Your task to perform on an android device: change notifications settings Image 0: 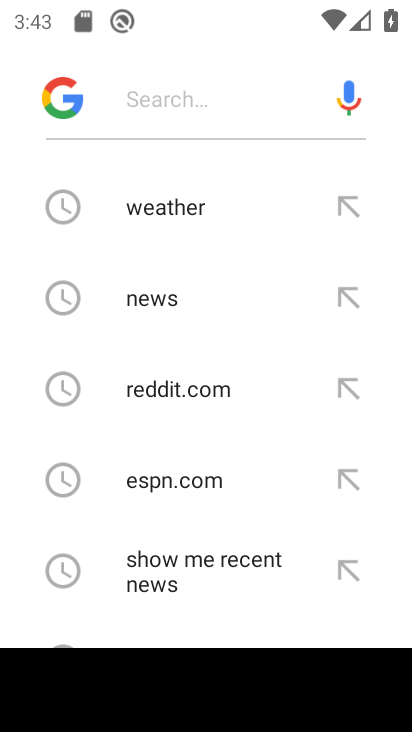
Step 0: press home button
Your task to perform on an android device: change notifications settings Image 1: 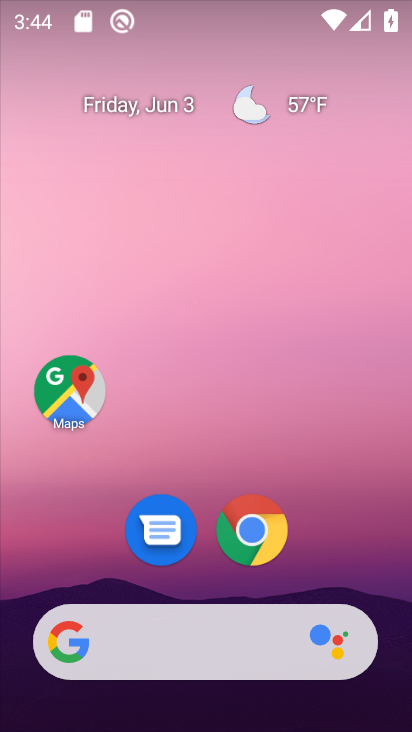
Step 1: drag from (203, 585) to (228, 93)
Your task to perform on an android device: change notifications settings Image 2: 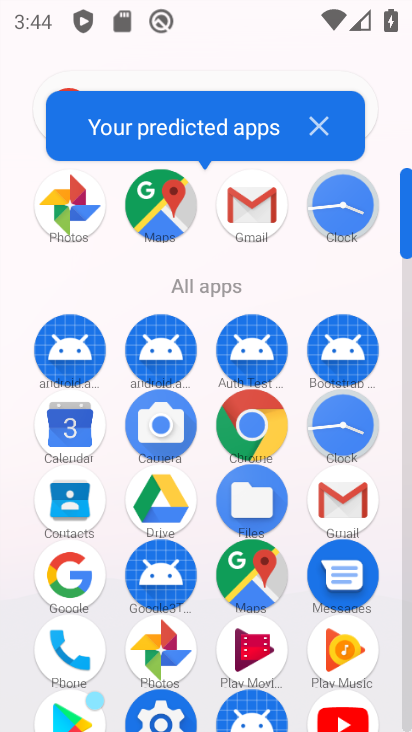
Step 2: drag from (198, 539) to (232, 133)
Your task to perform on an android device: change notifications settings Image 3: 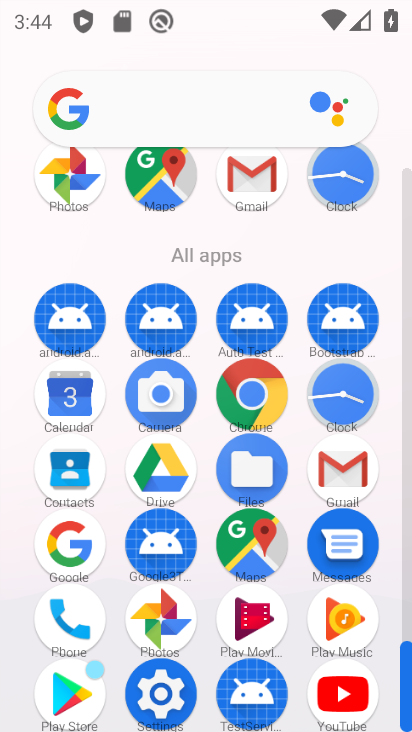
Step 3: click (157, 687)
Your task to perform on an android device: change notifications settings Image 4: 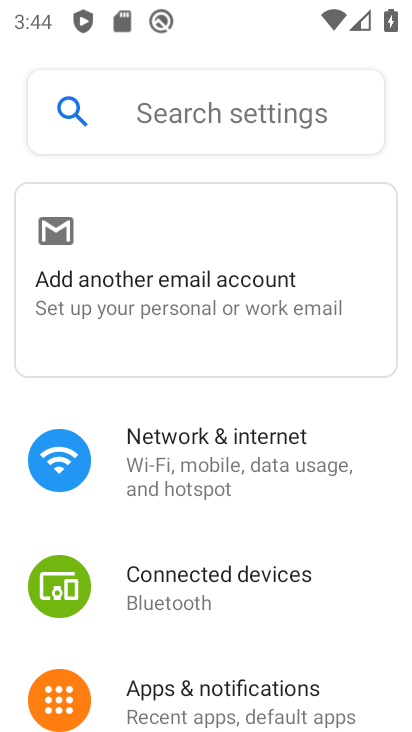
Step 4: click (221, 691)
Your task to perform on an android device: change notifications settings Image 5: 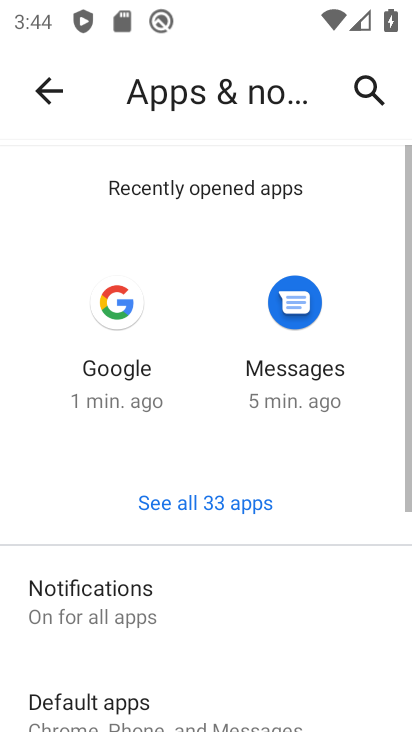
Step 5: click (169, 592)
Your task to perform on an android device: change notifications settings Image 6: 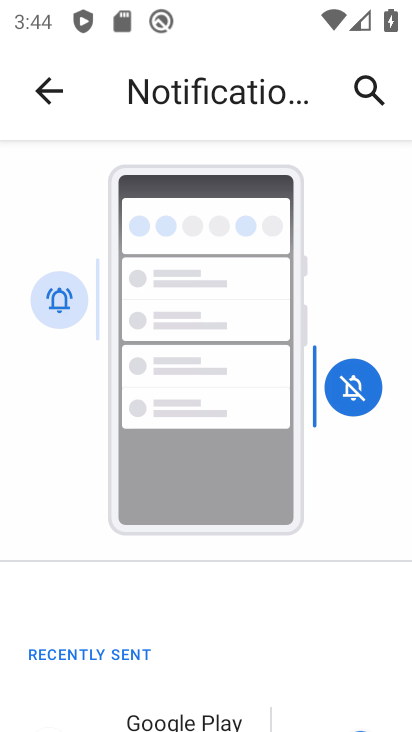
Step 6: drag from (229, 672) to (236, 299)
Your task to perform on an android device: change notifications settings Image 7: 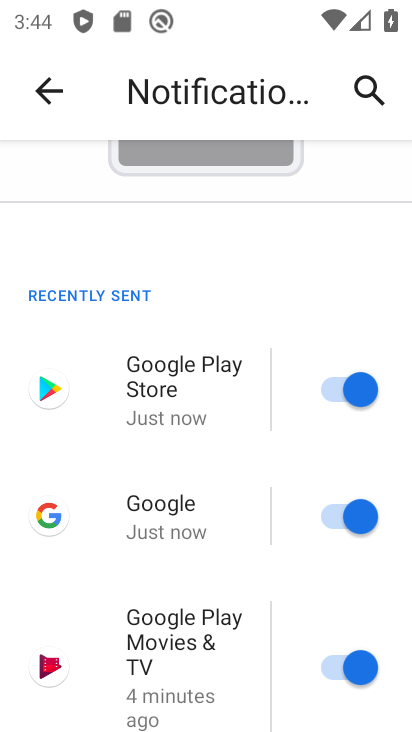
Step 7: click (335, 389)
Your task to perform on an android device: change notifications settings Image 8: 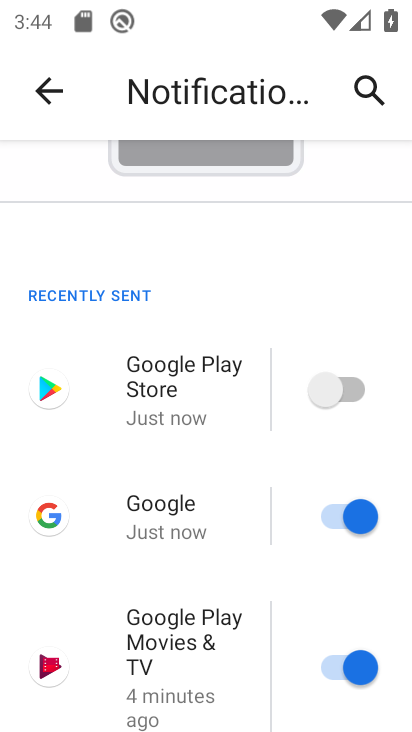
Step 8: click (348, 510)
Your task to perform on an android device: change notifications settings Image 9: 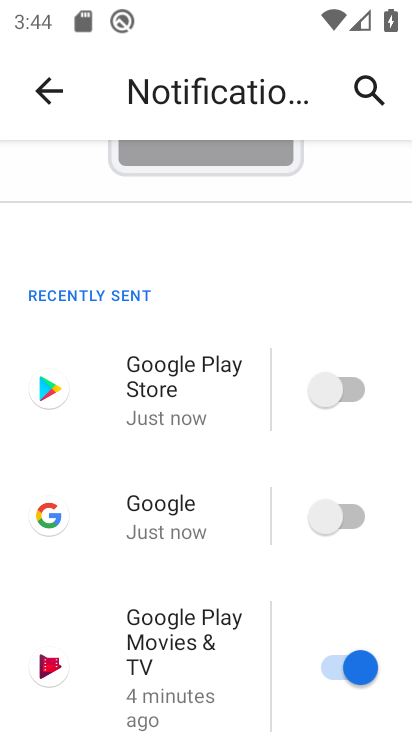
Step 9: click (339, 662)
Your task to perform on an android device: change notifications settings Image 10: 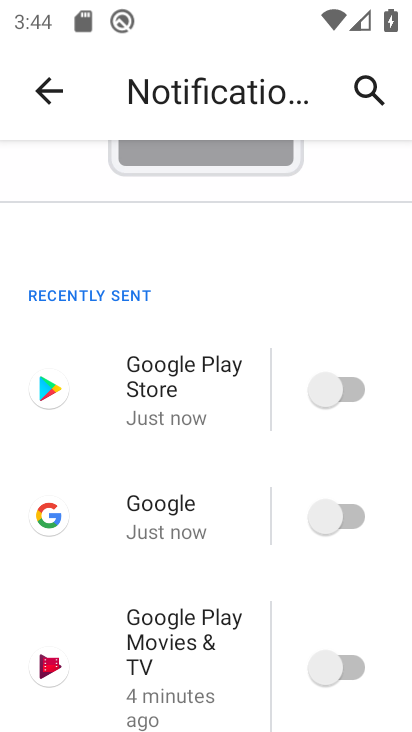
Step 10: drag from (255, 672) to (272, 188)
Your task to perform on an android device: change notifications settings Image 11: 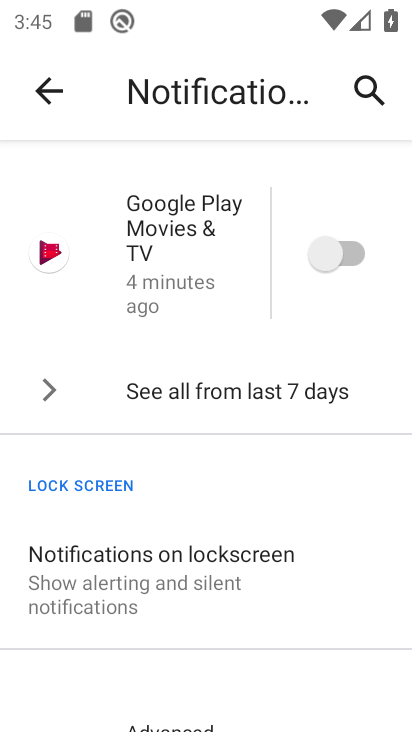
Step 11: click (121, 586)
Your task to perform on an android device: change notifications settings Image 12: 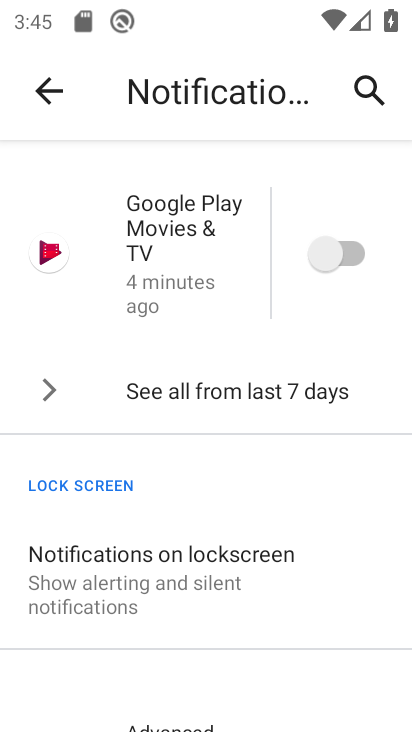
Step 12: click (239, 160)
Your task to perform on an android device: change notifications settings Image 13: 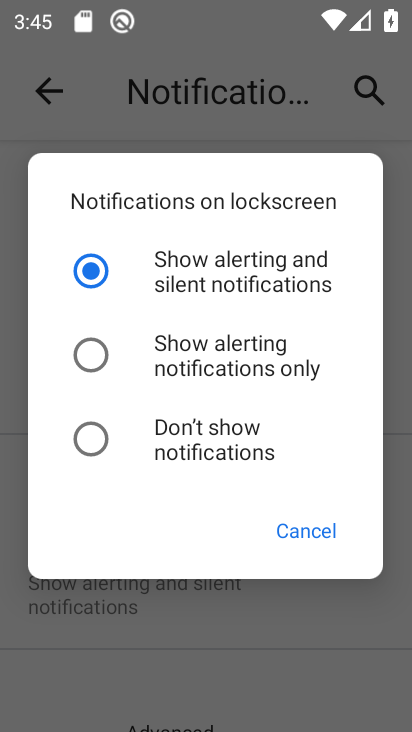
Step 13: click (87, 352)
Your task to perform on an android device: change notifications settings Image 14: 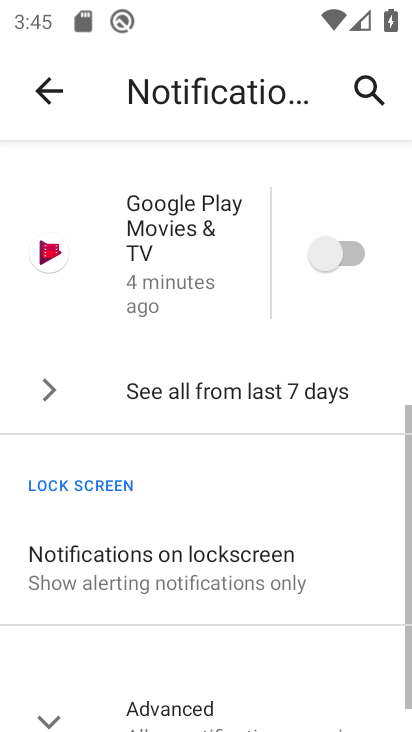
Step 14: drag from (184, 629) to (239, 175)
Your task to perform on an android device: change notifications settings Image 15: 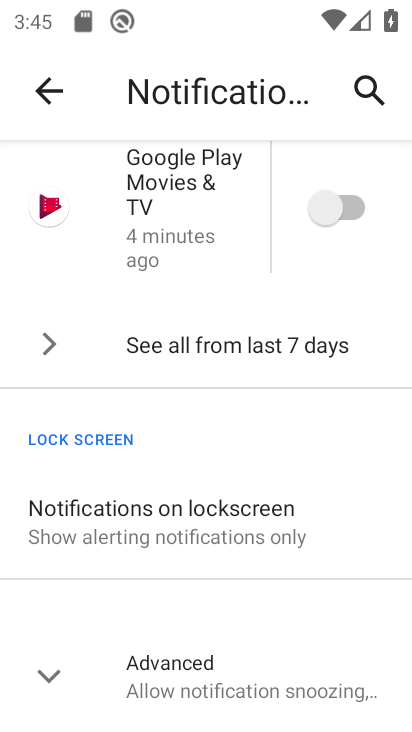
Step 15: click (36, 677)
Your task to perform on an android device: change notifications settings Image 16: 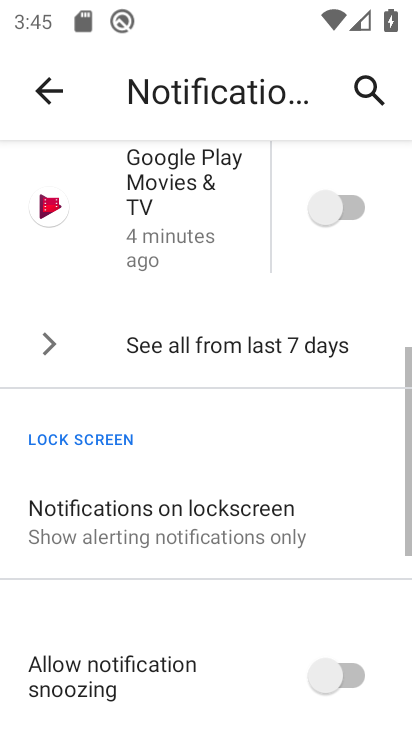
Step 16: click (338, 672)
Your task to perform on an android device: change notifications settings Image 17: 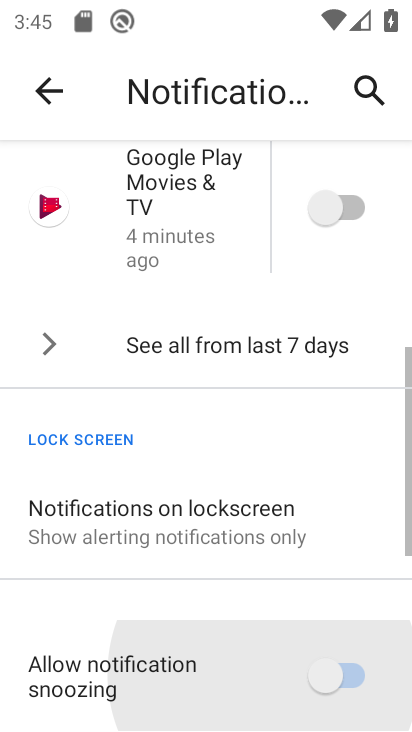
Step 17: task complete